Your task to perform on an android device: Is it going to rain tomorrow? Image 0: 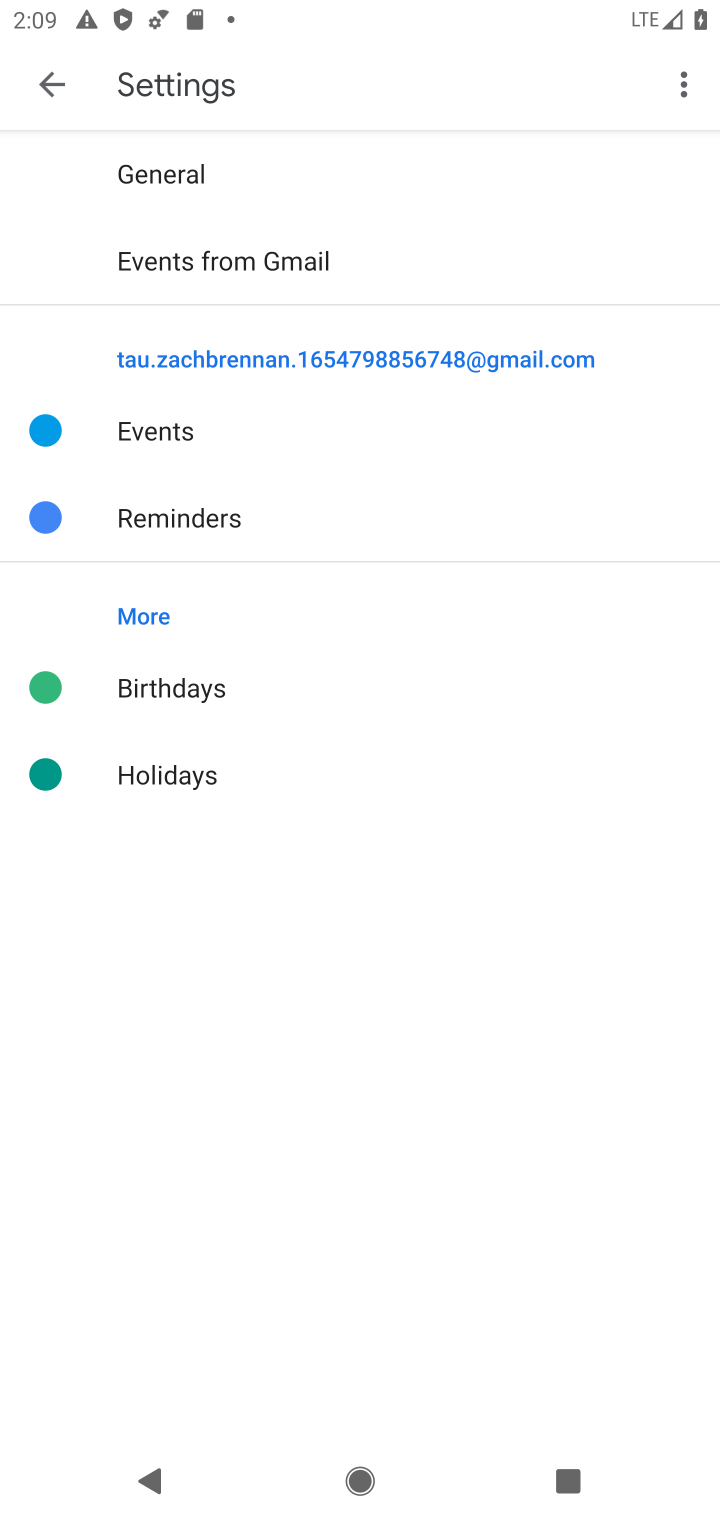
Step 0: press back button
Your task to perform on an android device: Is it going to rain tomorrow? Image 1: 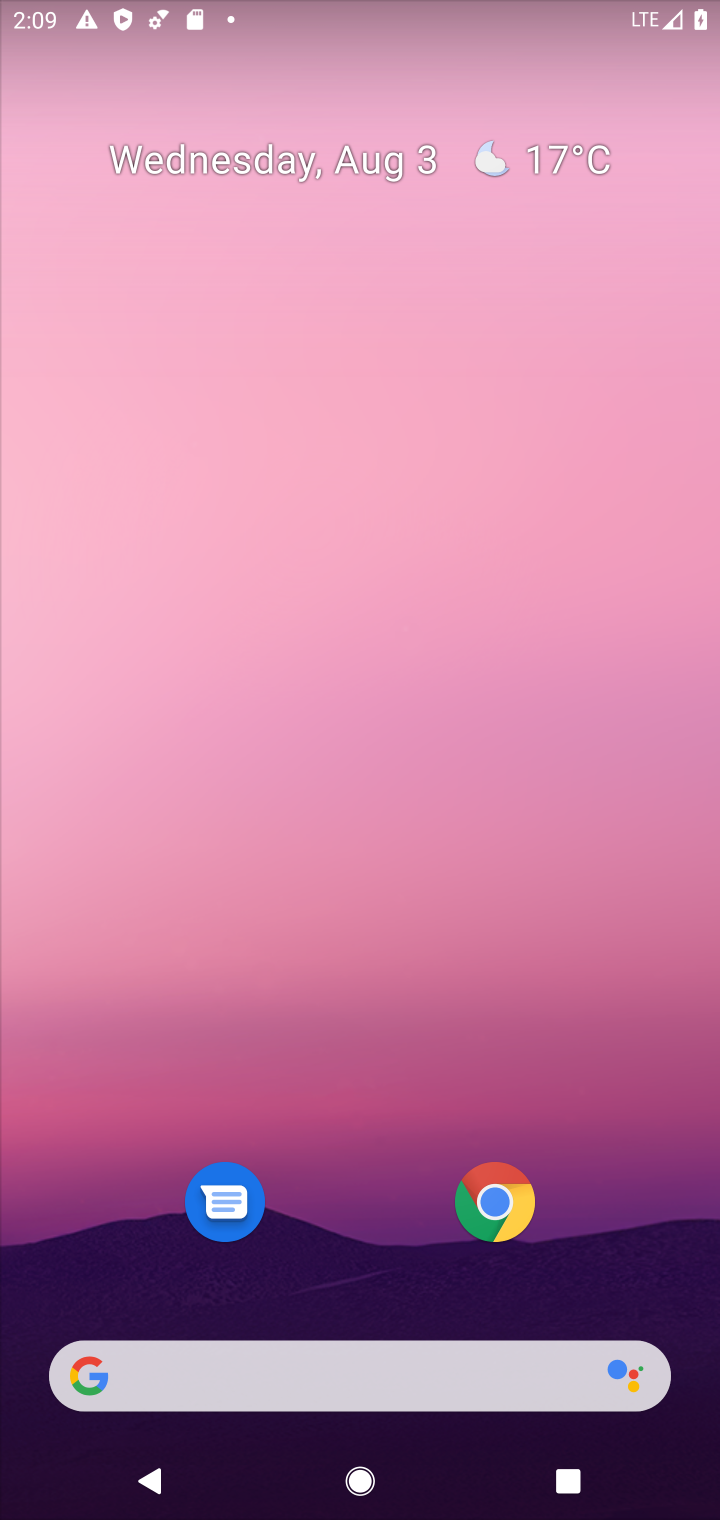
Step 1: click (280, 1380)
Your task to perform on an android device: Is it going to rain tomorrow? Image 2: 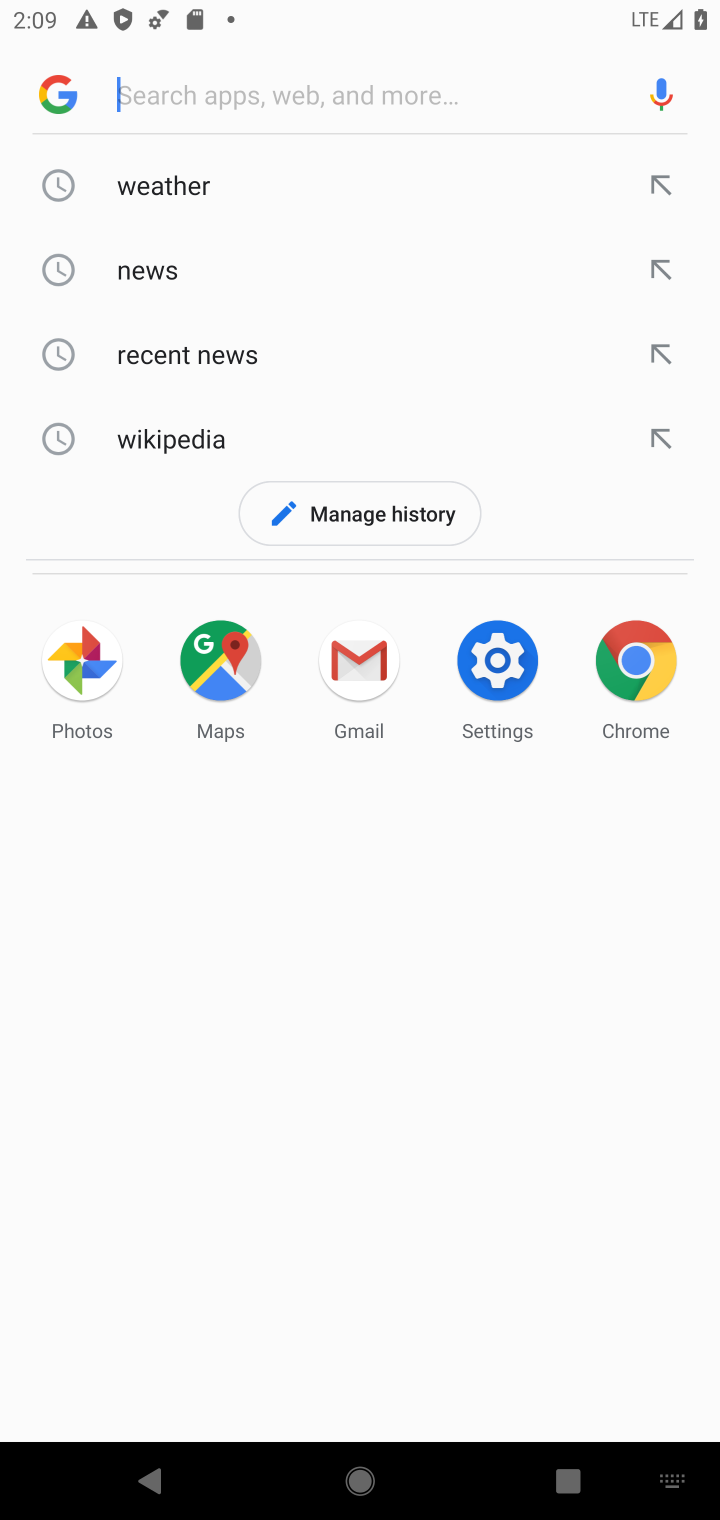
Step 2: click (177, 174)
Your task to perform on an android device: Is it going to rain tomorrow? Image 3: 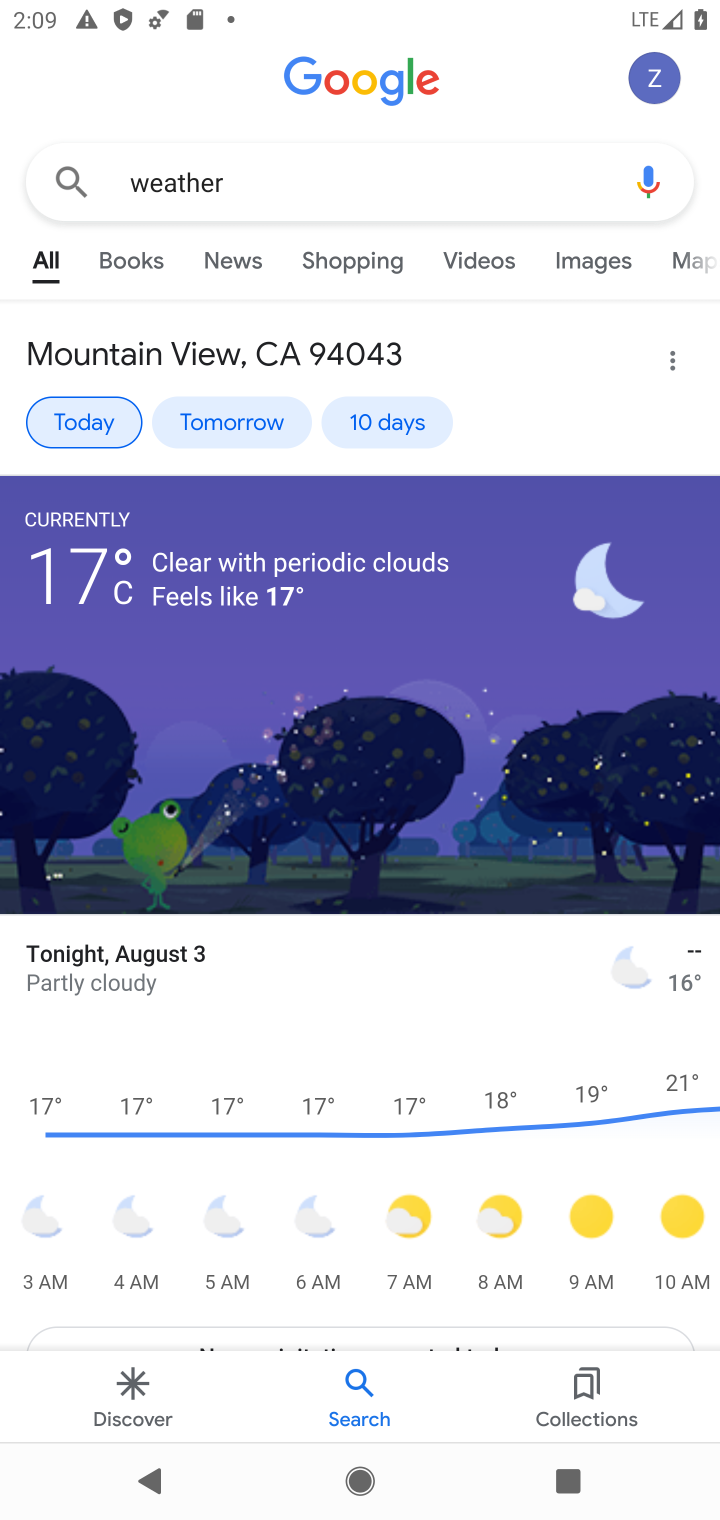
Step 3: click (226, 431)
Your task to perform on an android device: Is it going to rain tomorrow? Image 4: 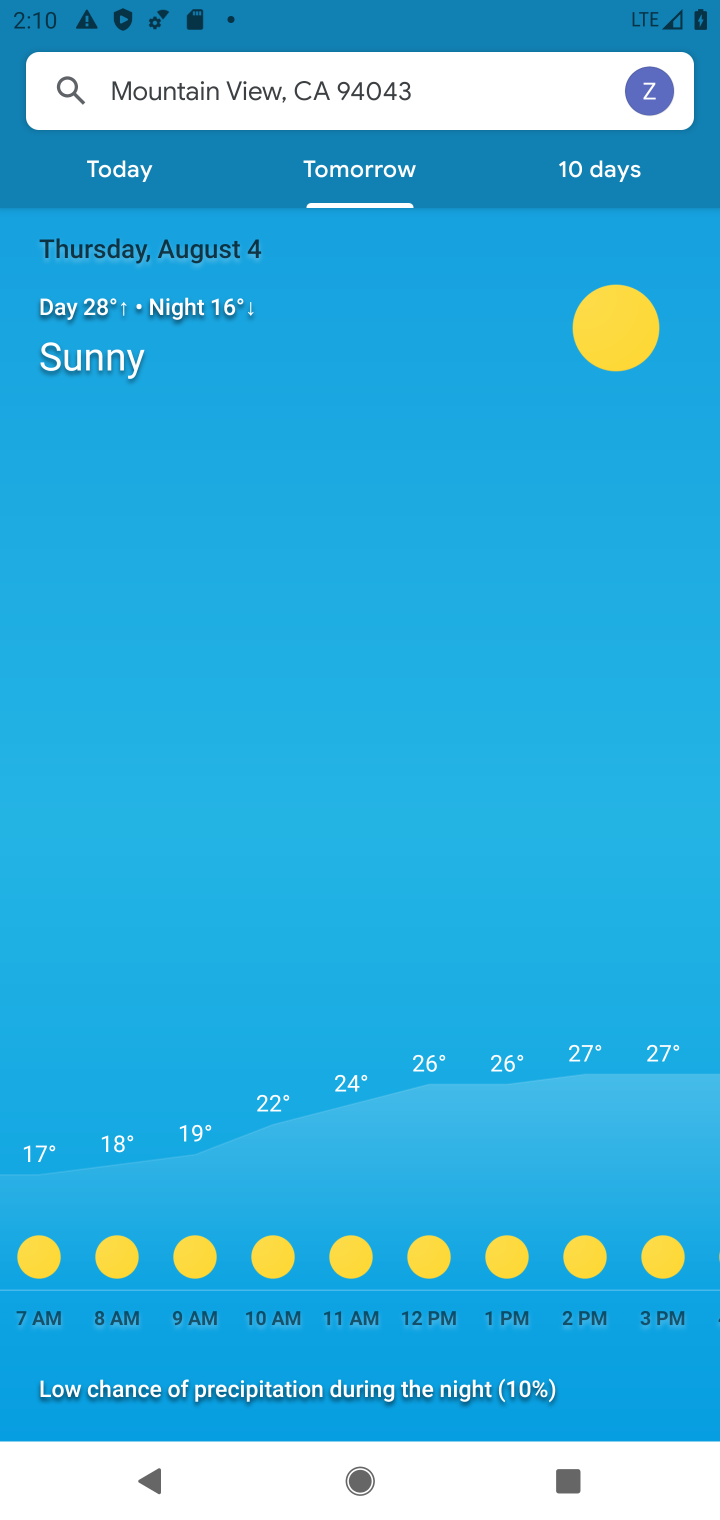
Step 4: task complete